Your task to perform on an android device: uninstall "Google Translate" Image 0: 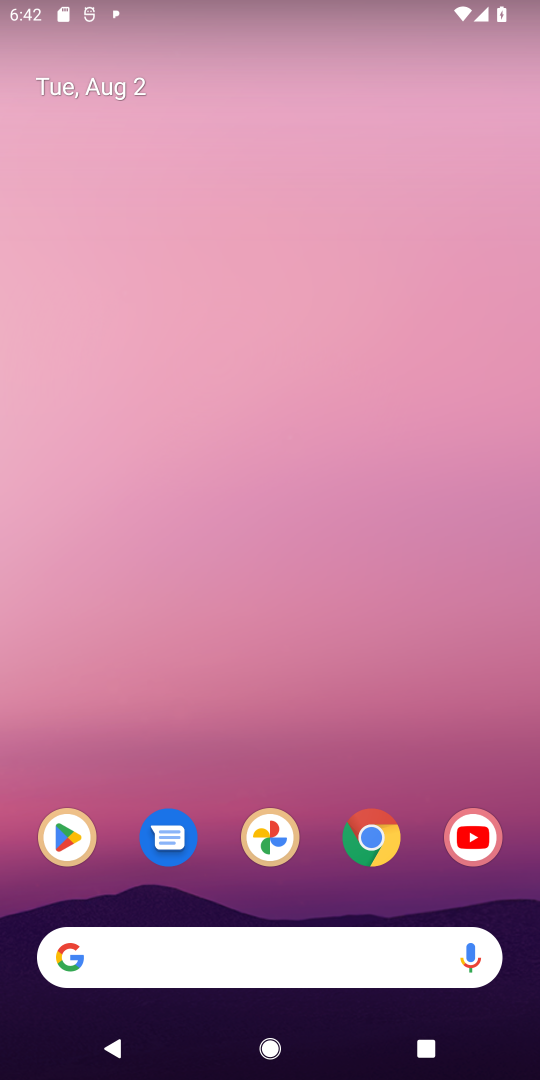
Step 0: click (72, 834)
Your task to perform on an android device: uninstall "Google Translate" Image 1: 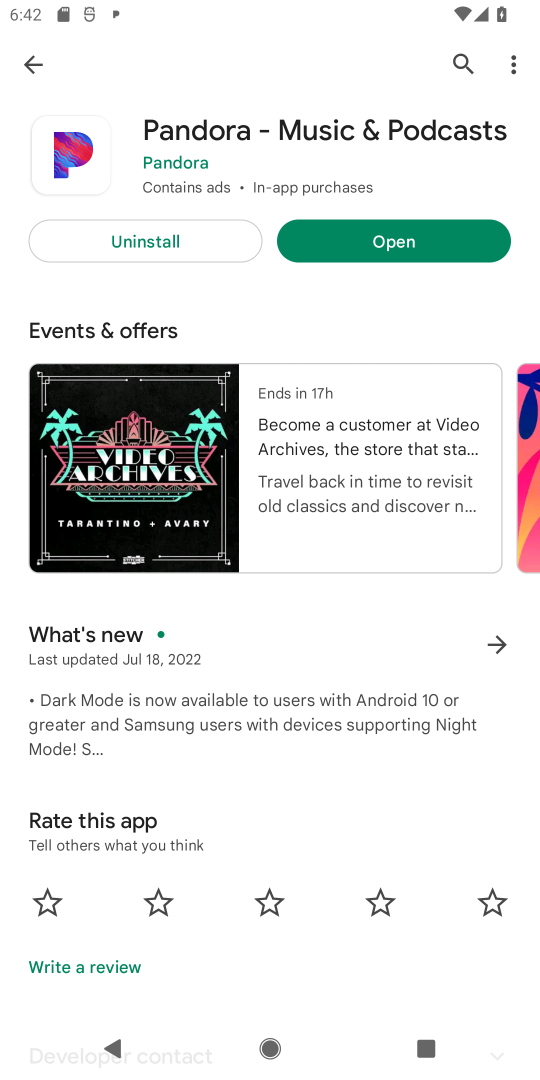
Step 1: click (465, 64)
Your task to perform on an android device: uninstall "Google Translate" Image 2: 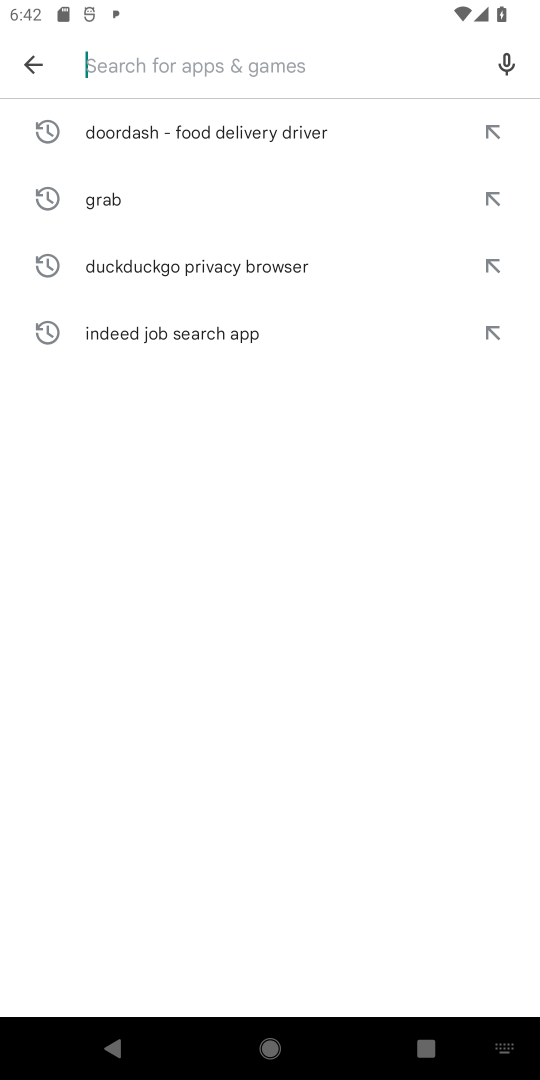
Step 2: type "Google Translate"
Your task to perform on an android device: uninstall "Google Translate" Image 3: 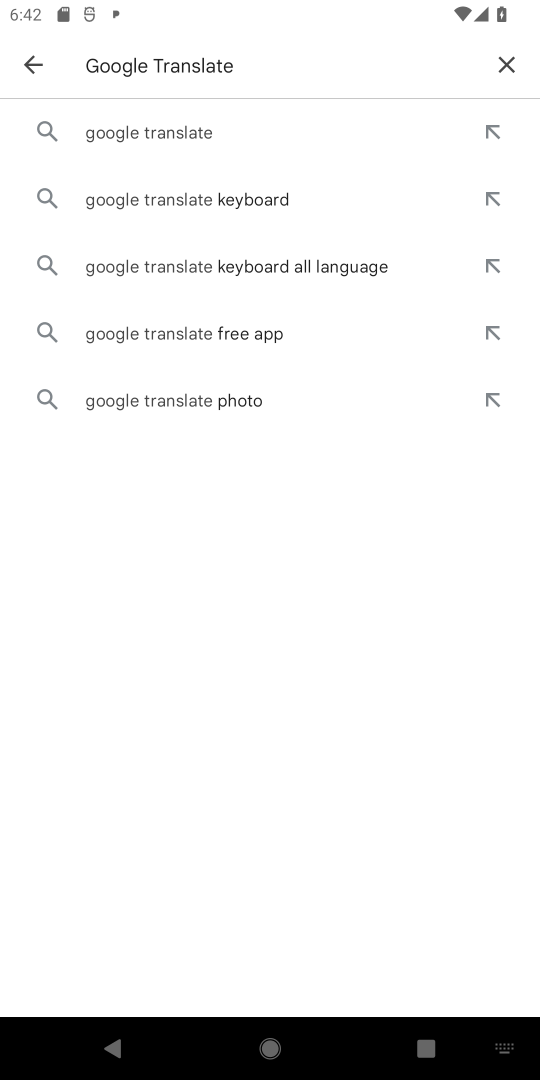
Step 3: click (147, 142)
Your task to perform on an android device: uninstall "Google Translate" Image 4: 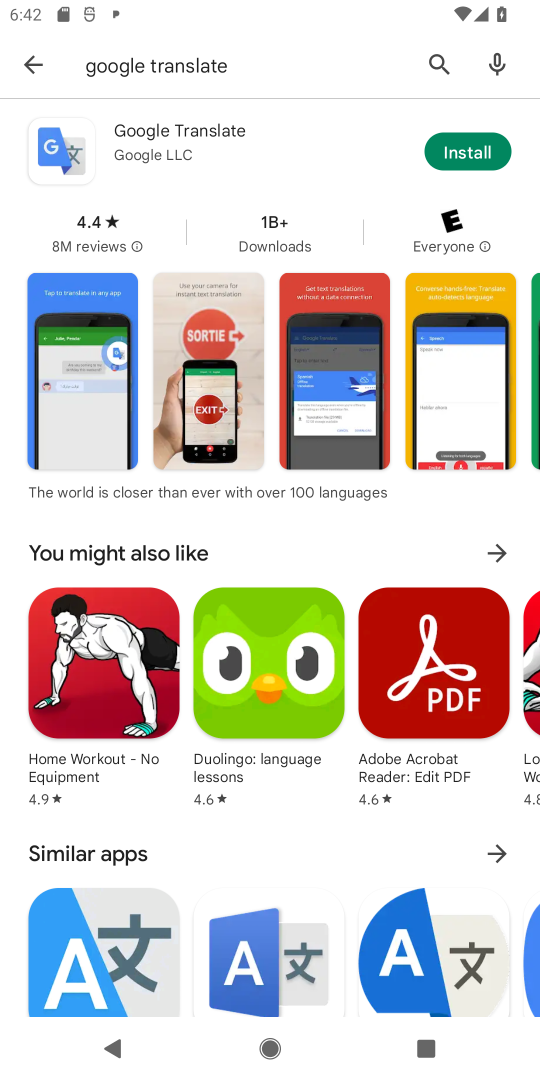
Step 4: task complete